Your task to perform on an android device: Open sound settings Image 0: 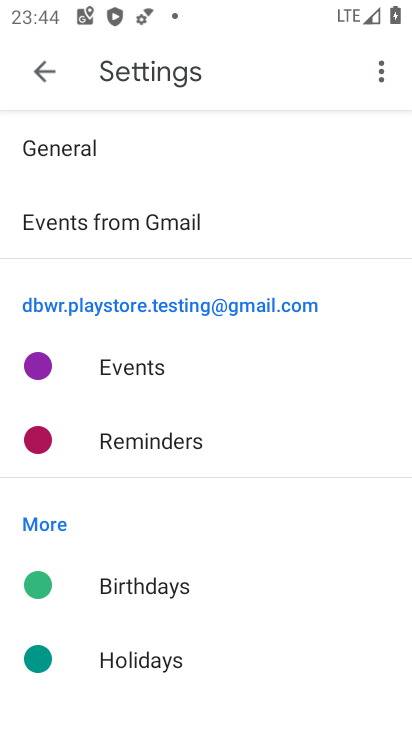
Step 0: press home button
Your task to perform on an android device: Open sound settings Image 1: 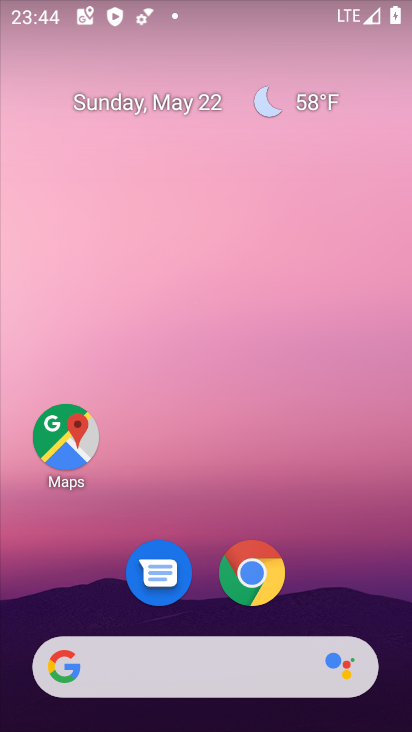
Step 1: drag from (211, 624) to (251, 0)
Your task to perform on an android device: Open sound settings Image 2: 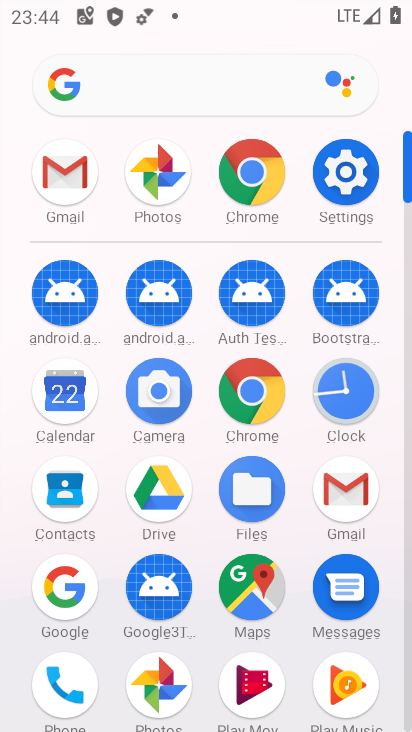
Step 2: drag from (228, 587) to (230, 218)
Your task to perform on an android device: Open sound settings Image 3: 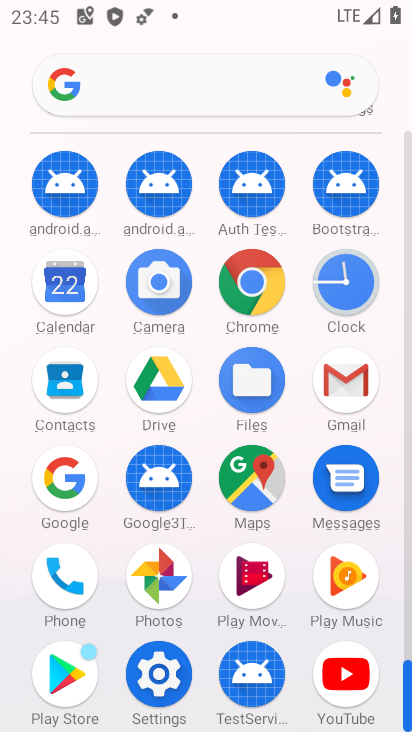
Step 3: click (162, 665)
Your task to perform on an android device: Open sound settings Image 4: 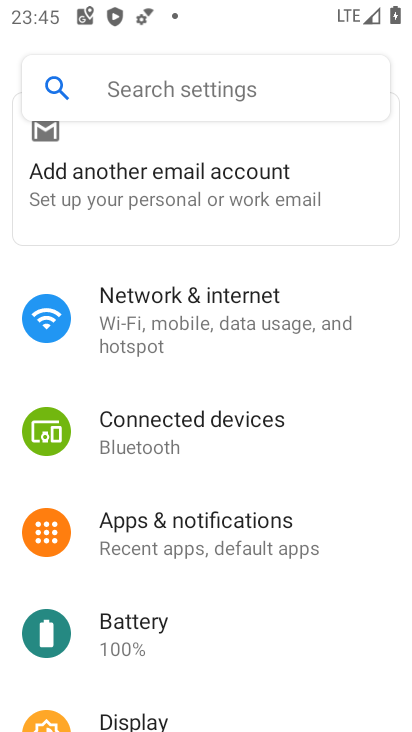
Step 4: drag from (169, 600) to (208, 319)
Your task to perform on an android device: Open sound settings Image 5: 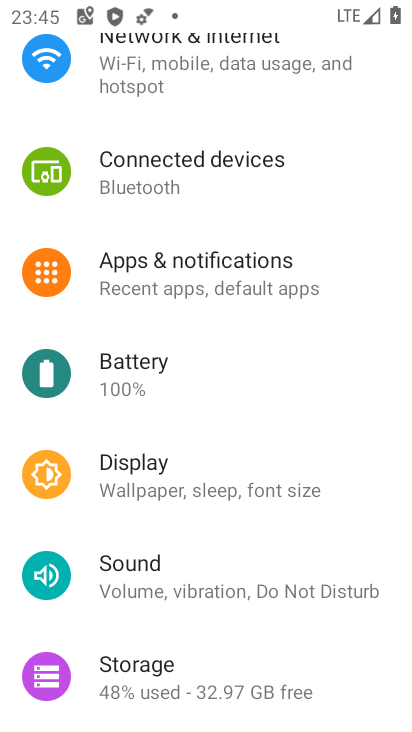
Step 5: click (173, 572)
Your task to perform on an android device: Open sound settings Image 6: 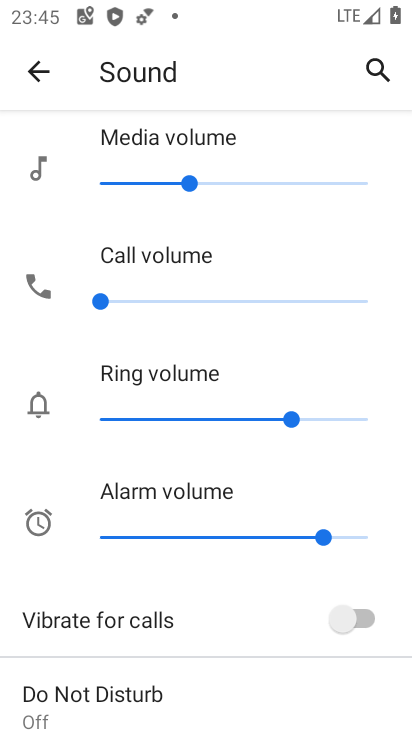
Step 6: task complete